Your task to perform on an android device: turn on airplane mode Image 0: 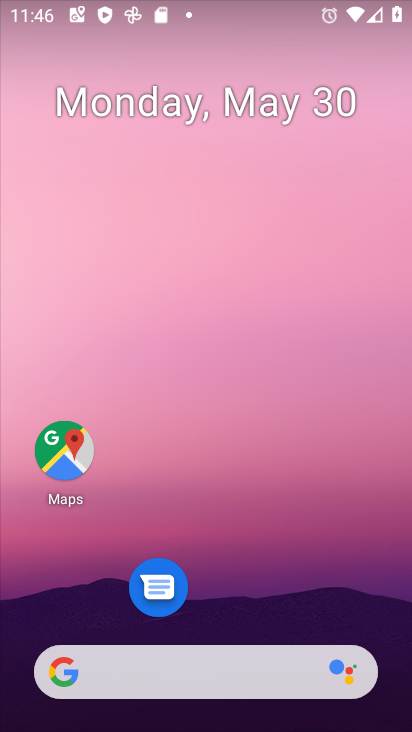
Step 0: drag from (258, 647) to (125, 9)
Your task to perform on an android device: turn on airplane mode Image 1: 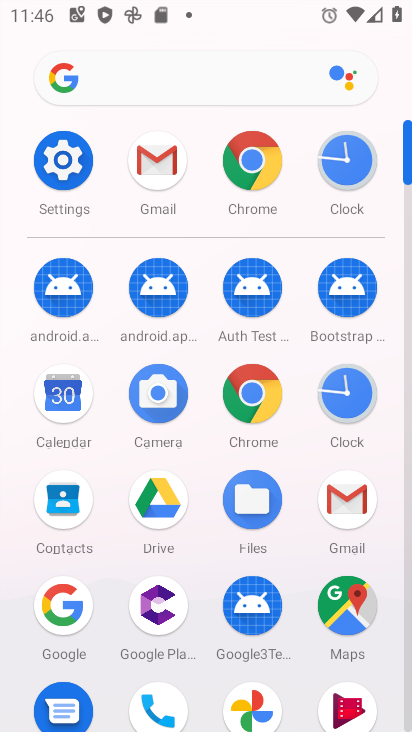
Step 1: click (60, 178)
Your task to perform on an android device: turn on airplane mode Image 2: 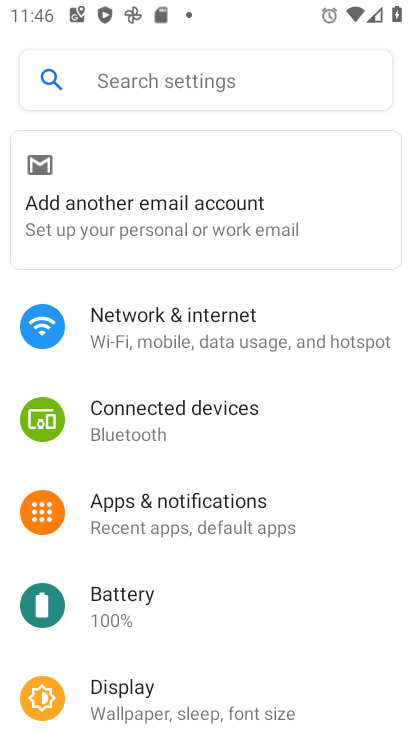
Step 2: click (92, 308)
Your task to perform on an android device: turn on airplane mode Image 3: 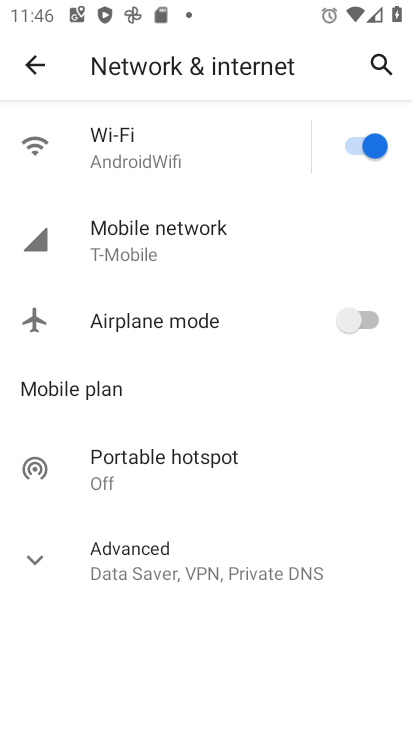
Step 3: click (352, 322)
Your task to perform on an android device: turn on airplane mode Image 4: 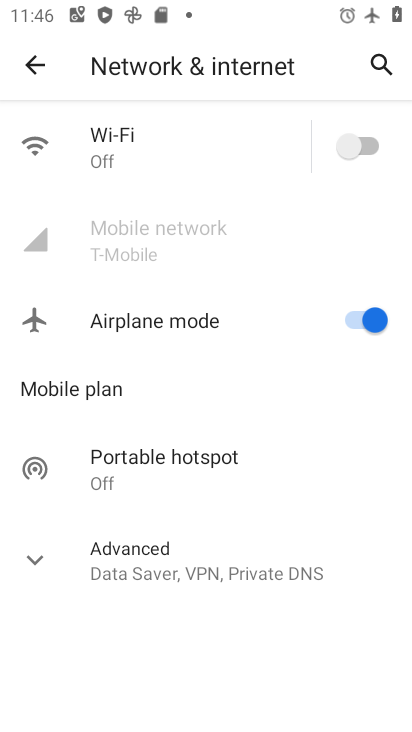
Step 4: task complete